Your task to perform on an android device: change the clock display to digital Image 0: 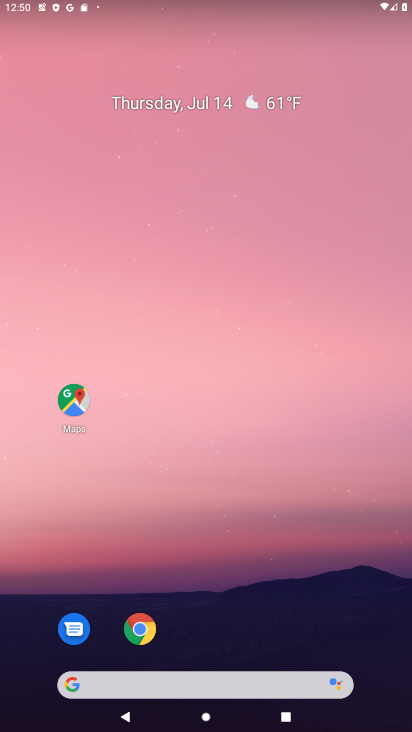
Step 0: drag from (203, 581) to (220, 91)
Your task to perform on an android device: change the clock display to digital Image 1: 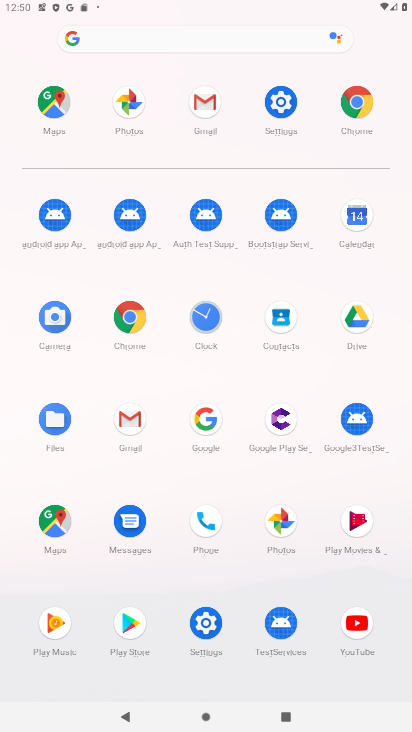
Step 1: click (211, 324)
Your task to perform on an android device: change the clock display to digital Image 2: 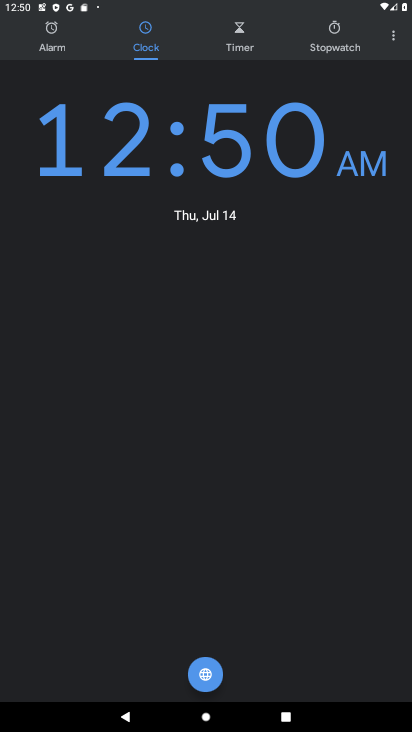
Step 2: click (392, 40)
Your task to perform on an android device: change the clock display to digital Image 3: 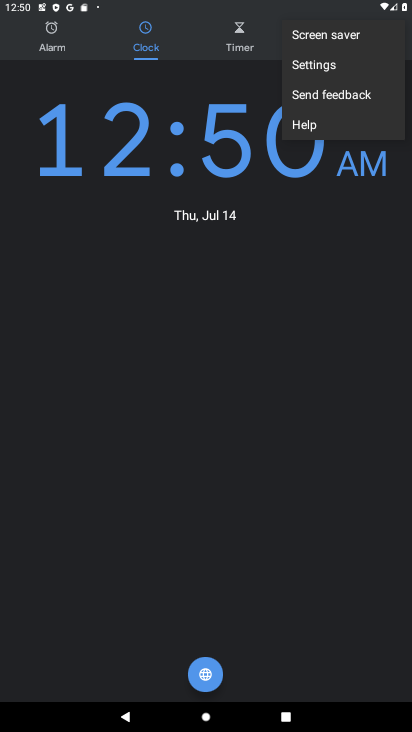
Step 3: click (401, 34)
Your task to perform on an android device: change the clock display to digital Image 4: 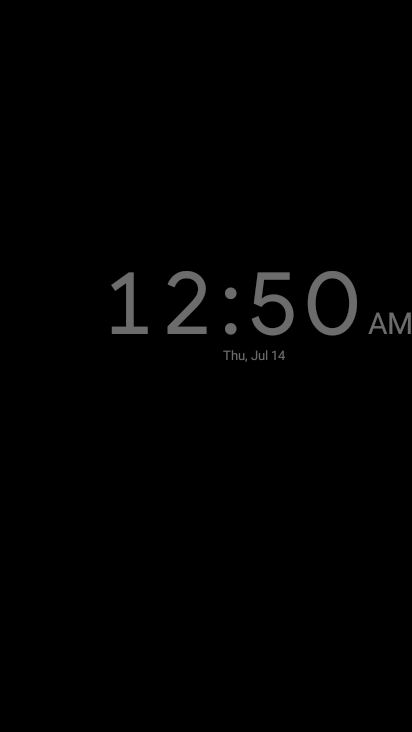
Step 4: click (401, 34)
Your task to perform on an android device: change the clock display to digital Image 5: 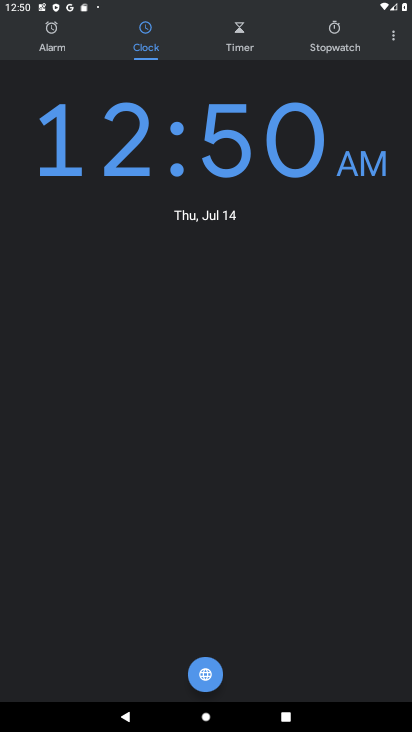
Step 5: click (384, 34)
Your task to perform on an android device: change the clock display to digital Image 6: 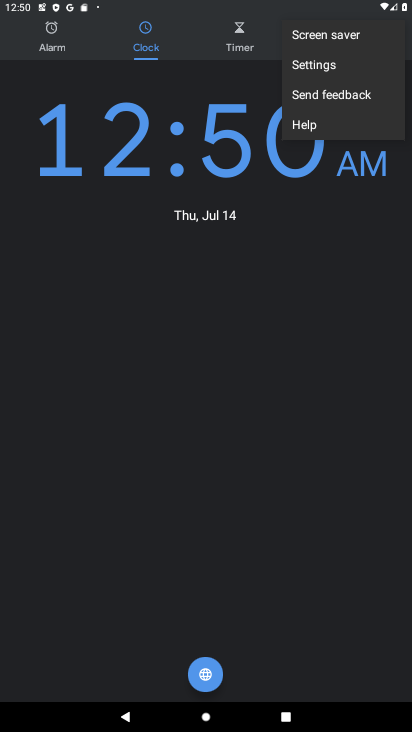
Step 6: click (356, 66)
Your task to perform on an android device: change the clock display to digital Image 7: 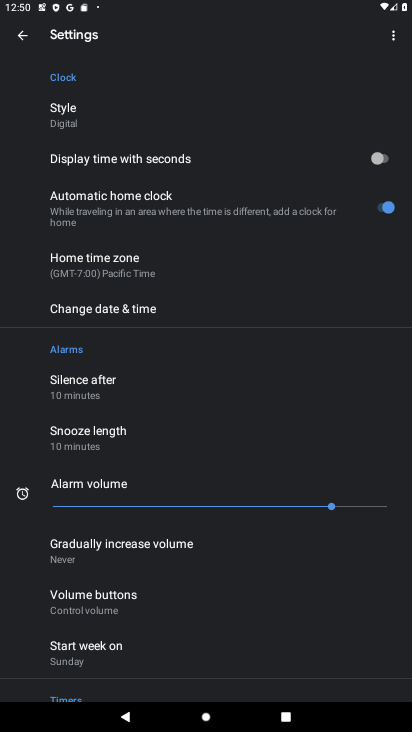
Step 7: task complete